Your task to perform on an android device: turn off notifications in google photos Image 0: 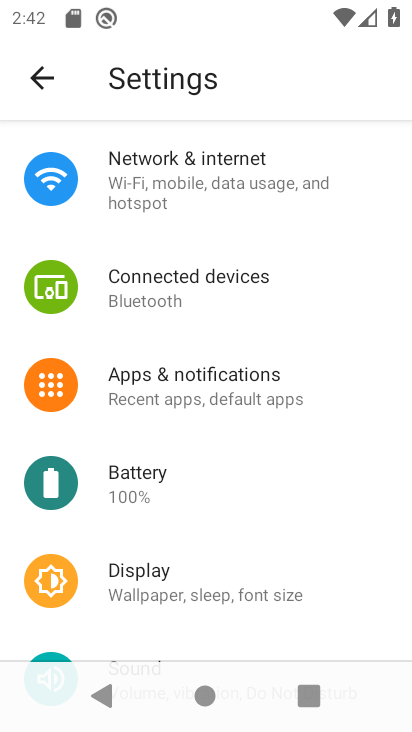
Step 0: press home button
Your task to perform on an android device: turn off notifications in google photos Image 1: 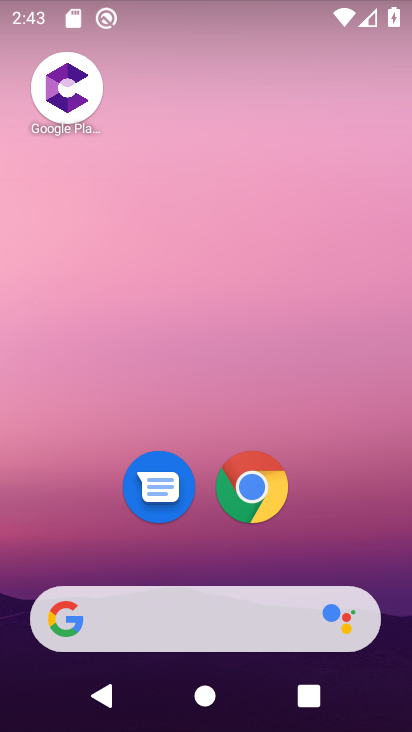
Step 1: drag from (397, 578) to (317, 212)
Your task to perform on an android device: turn off notifications in google photos Image 2: 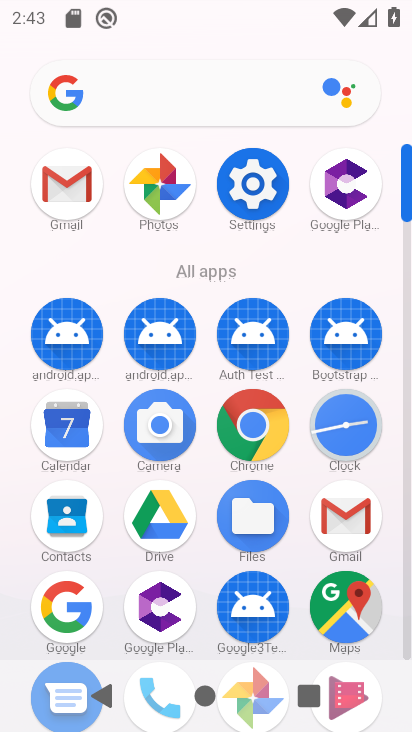
Step 2: click (404, 644)
Your task to perform on an android device: turn off notifications in google photos Image 3: 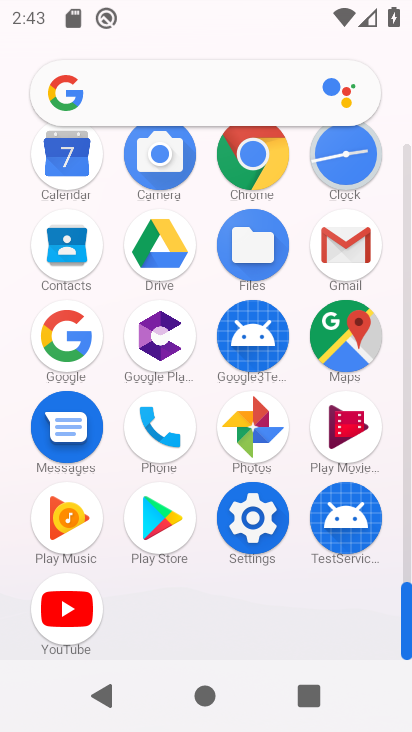
Step 3: click (262, 451)
Your task to perform on an android device: turn off notifications in google photos Image 4: 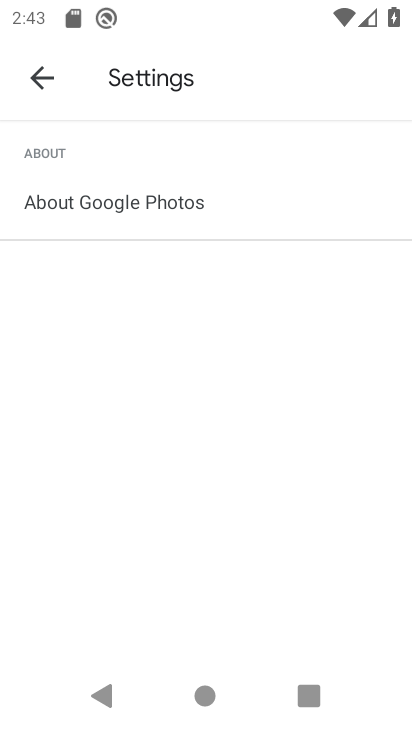
Step 4: click (55, 100)
Your task to perform on an android device: turn off notifications in google photos Image 5: 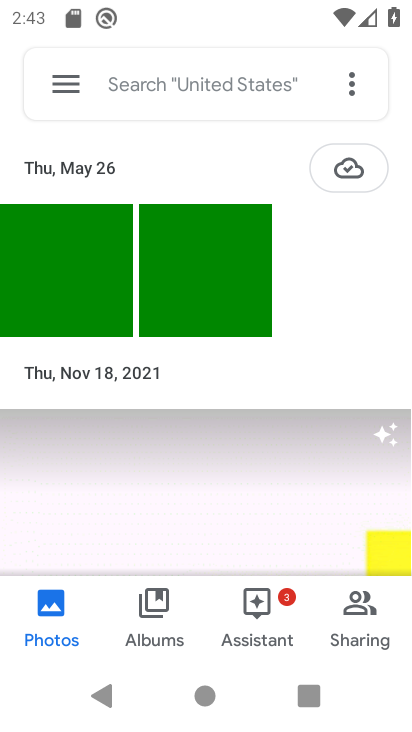
Step 5: click (69, 90)
Your task to perform on an android device: turn off notifications in google photos Image 6: 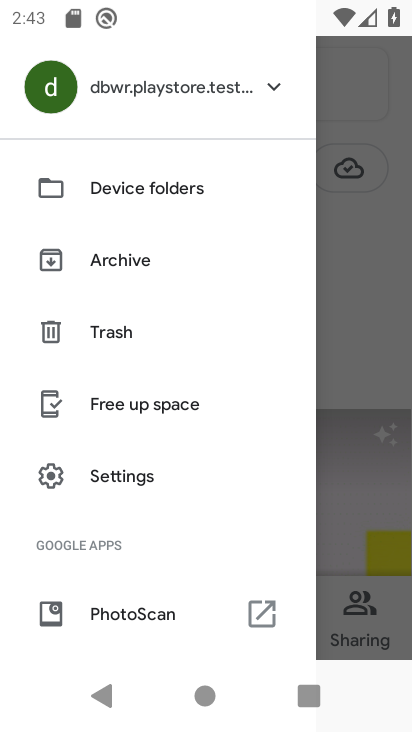
Step 6: click (174, 477)
Your task to perform on an android device: turn off notifications in google photos Image 7: 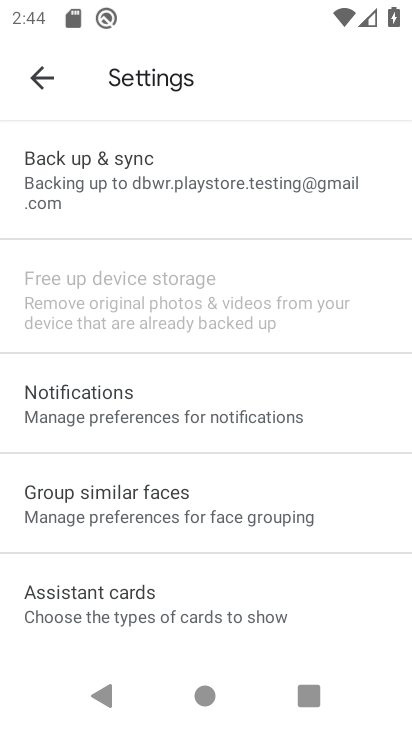
Step 7: click (222, 399)
Your task to perform on an android device: turn off notifications in google photos Image 8: 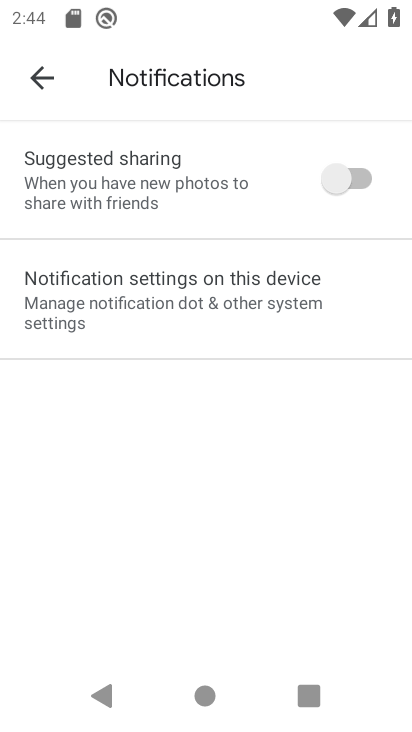
Step 8: click (232, 306)
Your task to perform on an android device: turn off notifications in google photos Image 9: 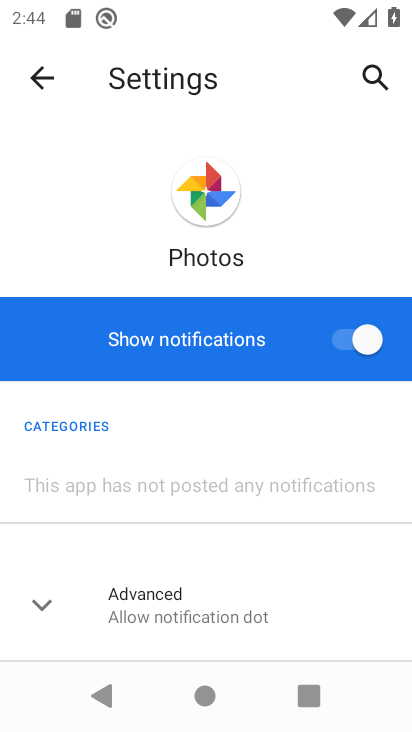
Step 9: click (356, 329)
Your task to perform on an android device: turn off notifications in google photos Image 10: 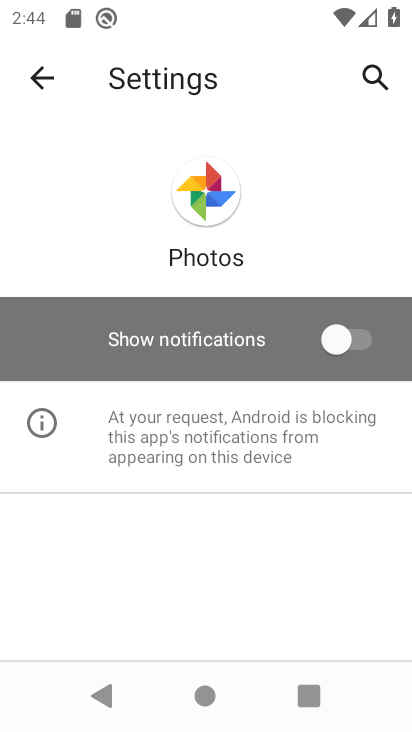
Step 10: task complete